Your task to perform on an android device: open the mobile data screen to see how much data has been used Image 0: 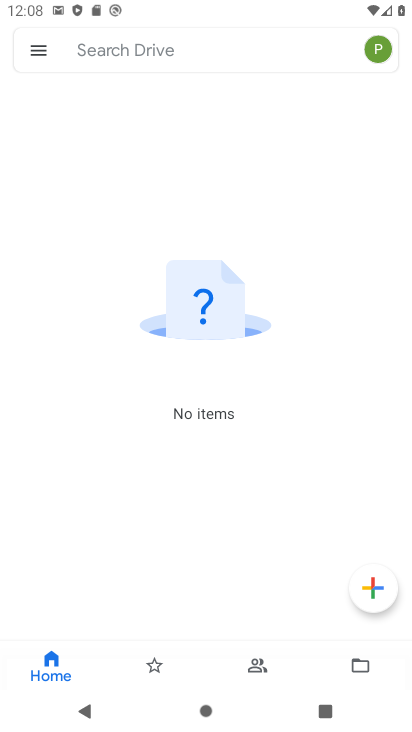
Step 0: press home button
Your task to perform on an android device: open the mobile data screen to see how much data has been used Image 1: 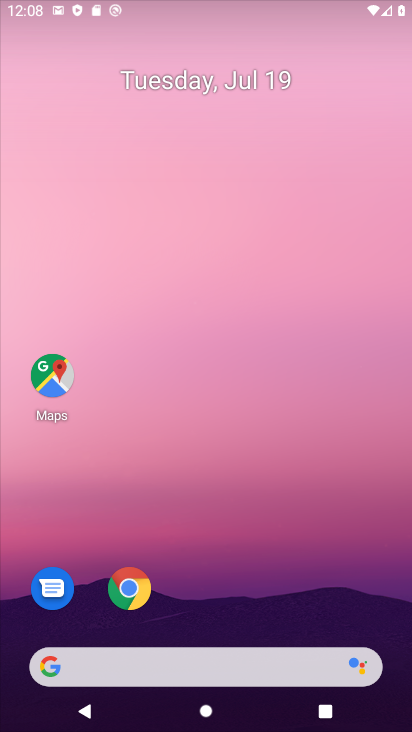
Step 1: drag from (398, 626) to (153, 14)
Your task to perform on an android device: open the mobile data screen to see how much data has been used Image 2: 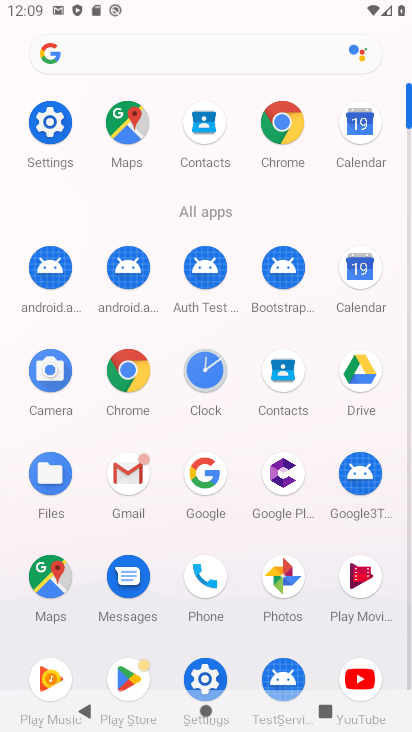
Step 2: click (53, 124)
Your task to perform on an android device: open the mobile data screen to see how much data has been used Image 3: 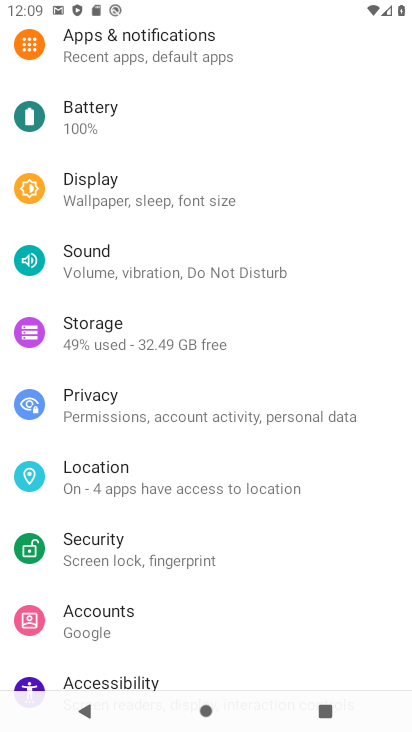
Step 3: drag from (160, 63) to (146, 728)
Your task to perform on an android device: open the mobile data screen to see how much data has been used Image 4: 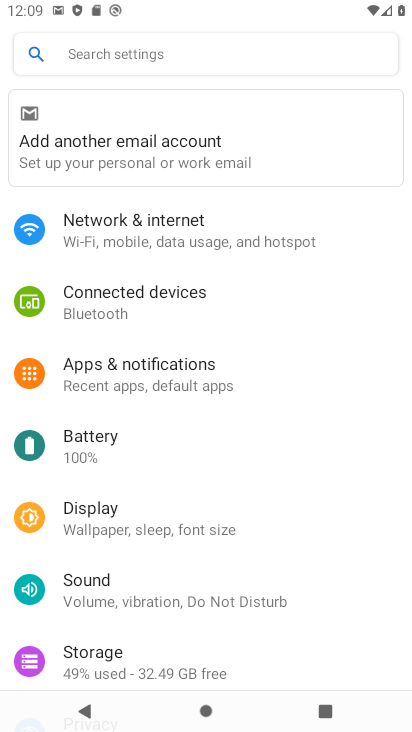
Step 4: click (179, 244)
Your task to perform on an android device: open the mobile data screen to see how much data has been used Image 5: 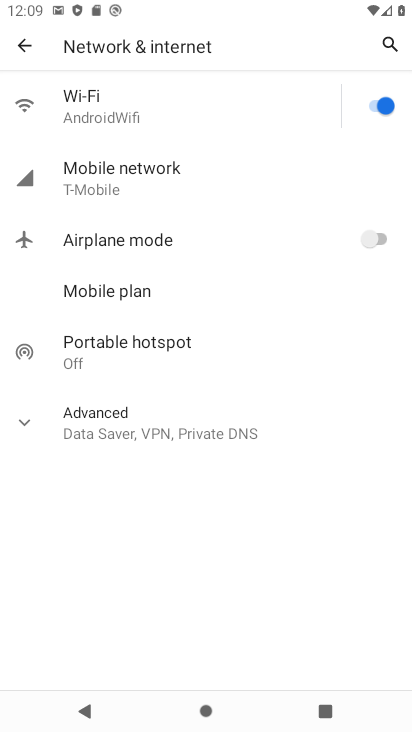
Step 5: click (141, 176)
Your task to perform on an android device: open the mobile data screen to see how much data has been used Image 6: 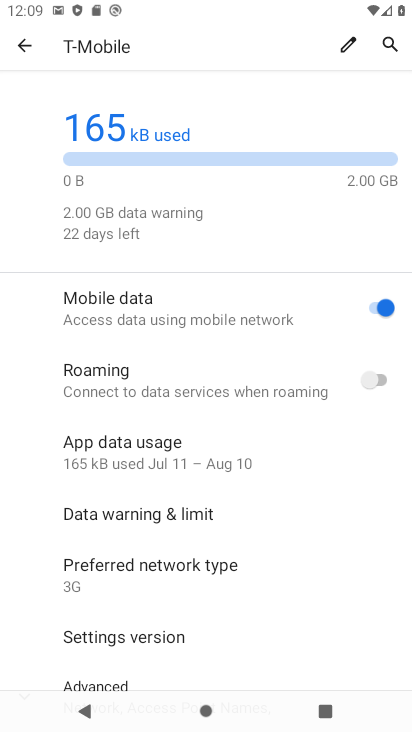
Step 6: click (131, 450)
Your task to perform on an android device: open the mobile data screen to see how much data has been used Image 7: 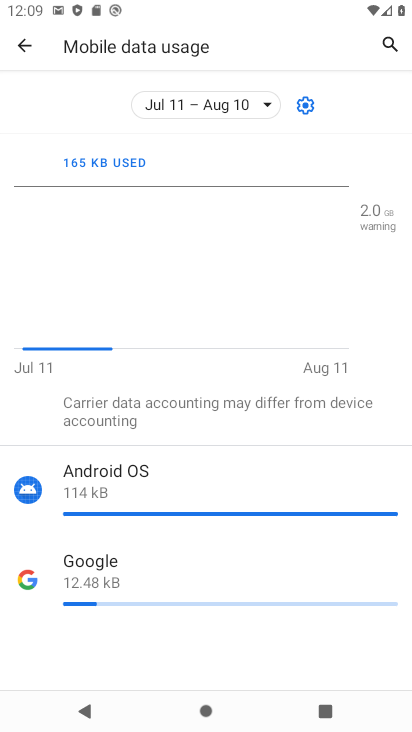
Step 7: task complete